Your task to perform on an android device: Open Wikipedia Image 0: 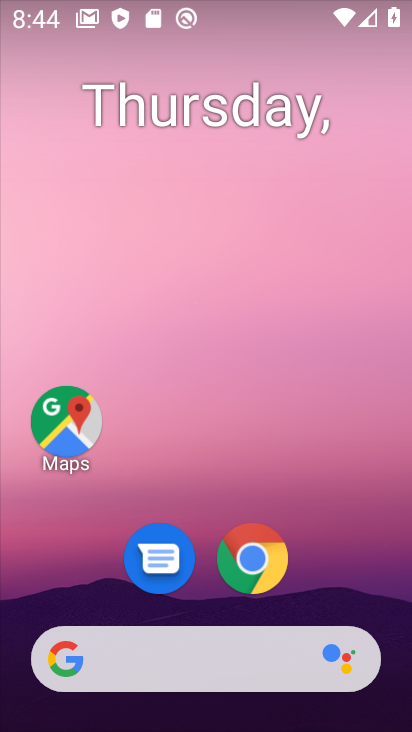
Step 0: click (252, 559)
Your task to perform on an android device: Open Wikipedia Image 1: 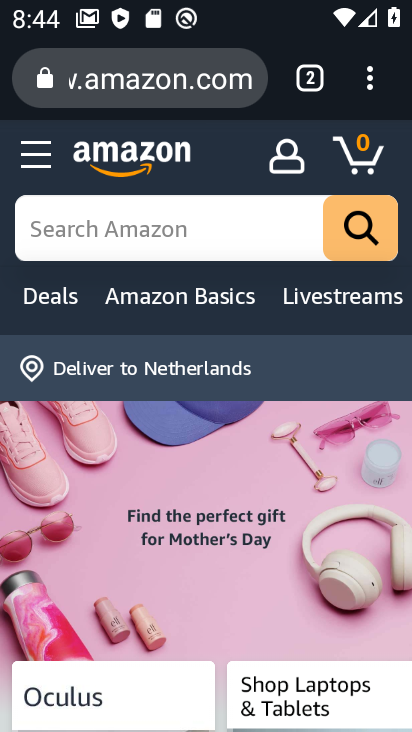
Step 1: click (370, 78)
Your task to perform on an android device: Open Wikipedia Image 2: 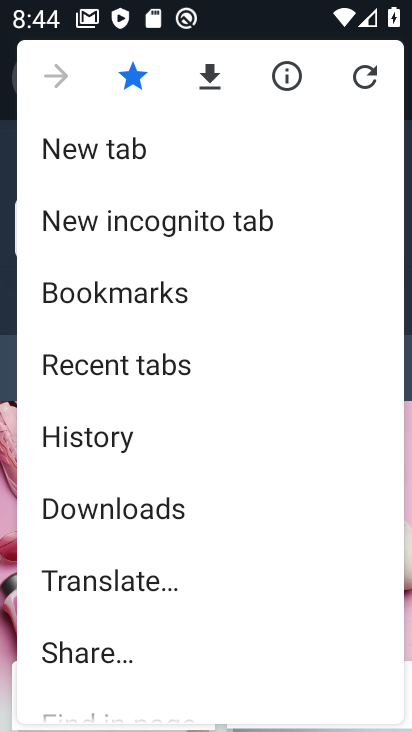
Step 2: press back button
Your task to perform on an android device: Open Wikipedia Image 3: 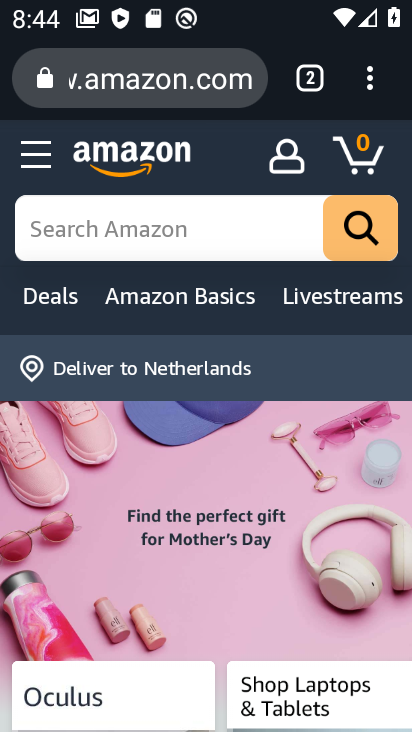
Step 3: click (114, 77)
Your task to perform on an android device: Open Wikipedia Image 4: 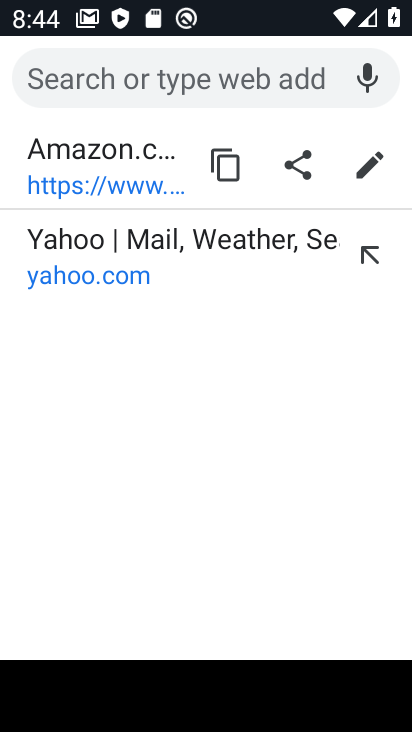
Step 4: type "wikipedia"
Your task to perform on an android device: Open Wikipedia Image 5: 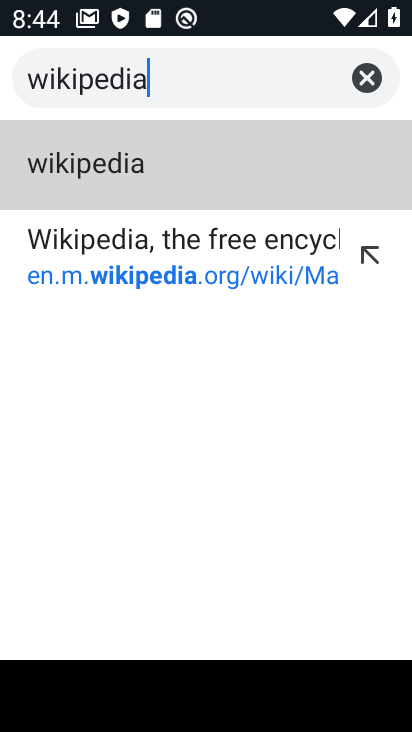
Step 5: click (102, 174)
Your task to perform on an android device: Open Wikipedia Image 6: 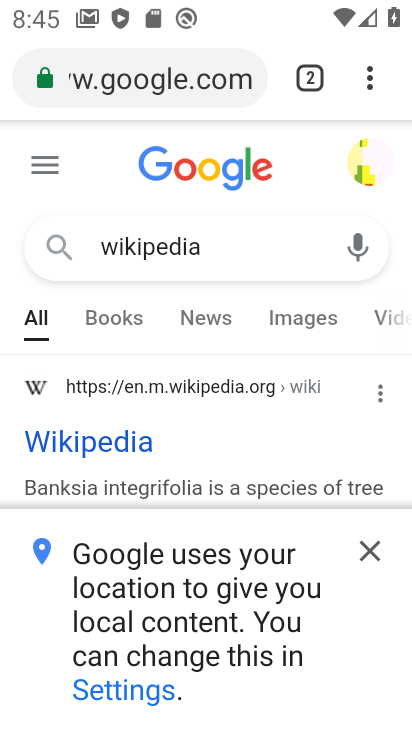
Step 6: click (113, 434)
Your task to perform on an android device: Open Wikipedia Image 7: 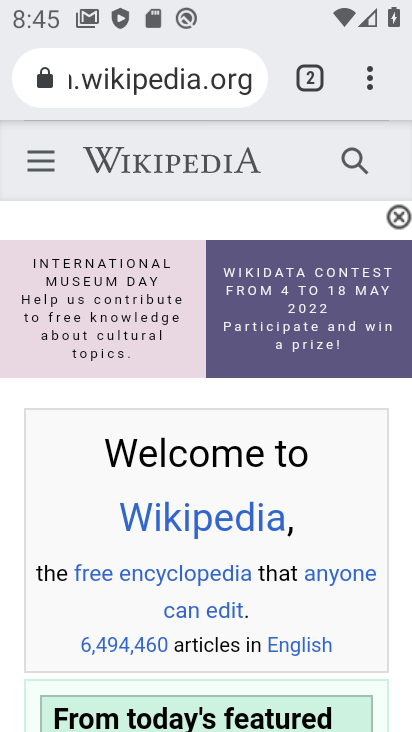
Step 7: task complete